Your task to perform on an android device: turn smart compose on in the gmail app Image 0: 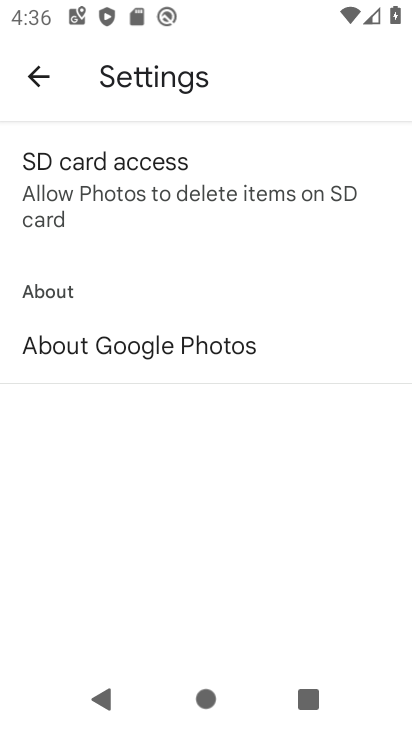
Step 0: press home button
Your task to perform on an android device: turn smart compose on in the gmail app Image 1: 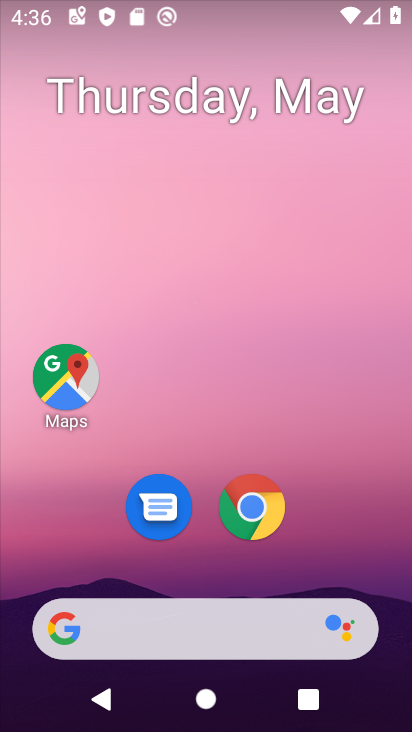
Step 1: drag from (193, 546) to (214, 82)
Your task to perform on an android device: turn smart compose on in the gmail app Image 2: 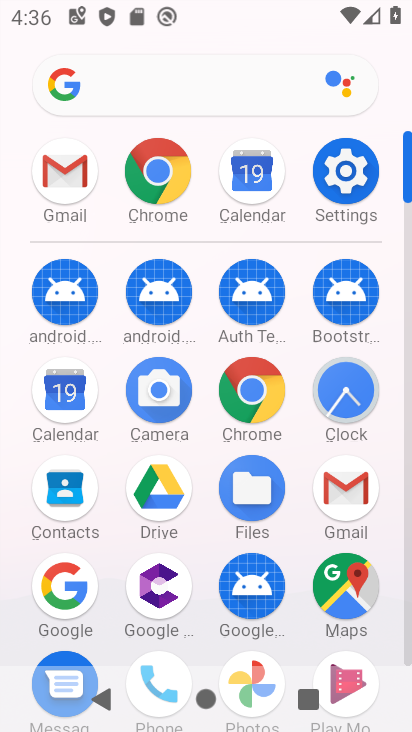
Step 2: click (353, 481)
Your task to perform on an android device: turn smart compose on in the gmail app Image 3: 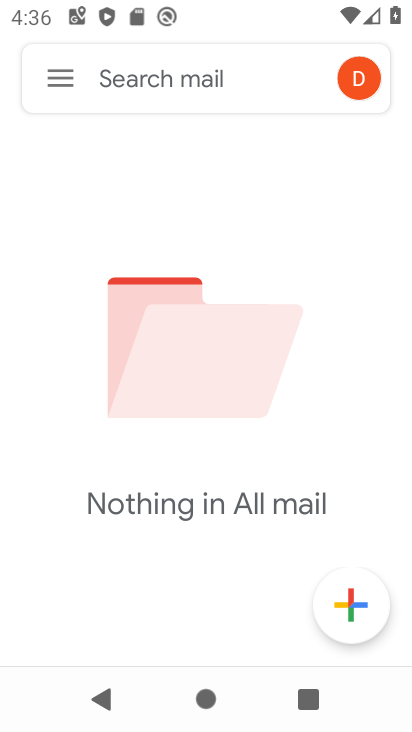
Step 3: click (43, 81)
Your task to perform on an android device: turn smart compose on in the gmail app Image 4: 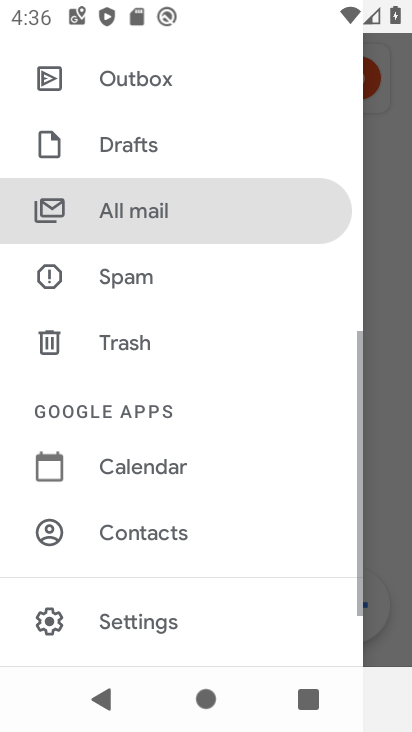
Step 4: click (105, 618)
Your task to perform on an android device: turn smart compose on in the gmail app Image 5: 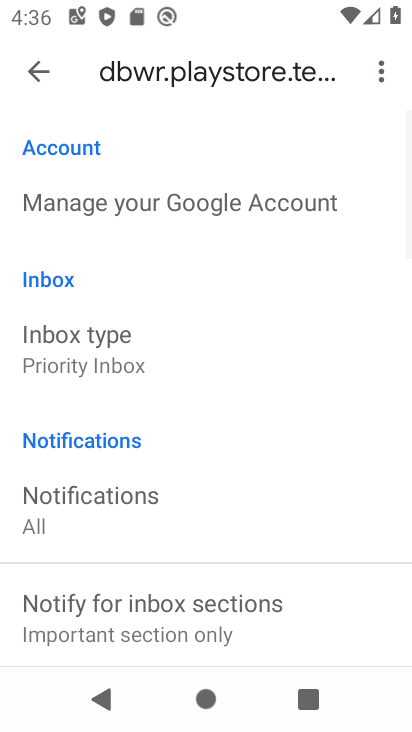
Step 5: task complete